Your task to perform on an android device: What's the news in the Philippines? Image 0: 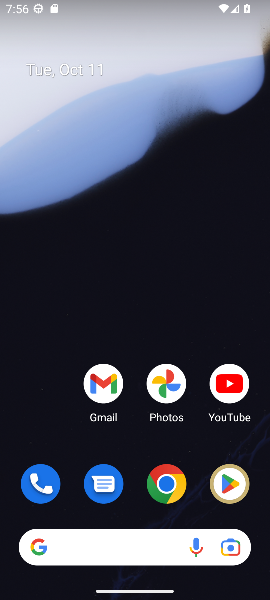
Step 0: drag from (184, 506) to (229, 37)
Your task to perform on an android device: What's the news in the Philippines? Image 1: 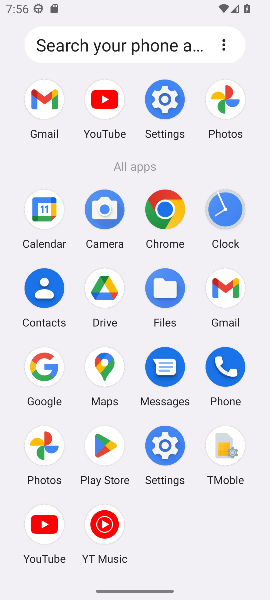
Step 1: click (165, 223)
Your task to perform on an android device: What's the news in the Philippines? Image 2: 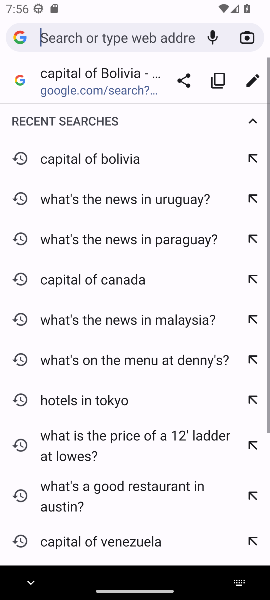
Step 2: click (165, 40)
Your task to perform on an android device: What's the news in the Philippines? Image 3: 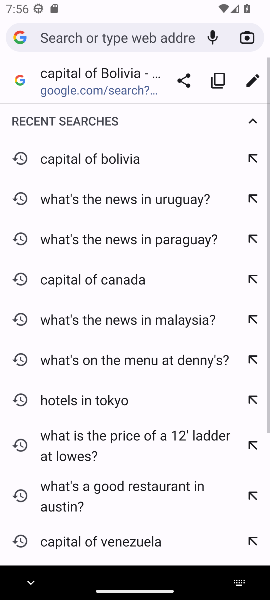
Step 3: type ""
Your task to perform on an android device: What's the news in the Philippines? Image 4: 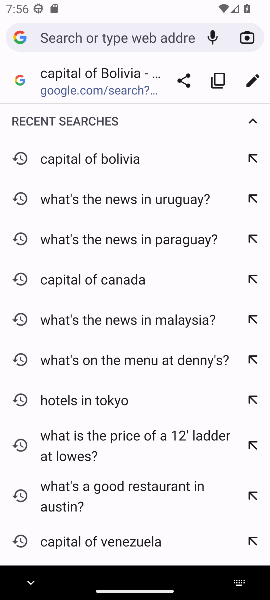
Step 4: type "What's the news in the Philippines?"
Your task to perform on an android device: What's the news in the Philippines? Image 5: 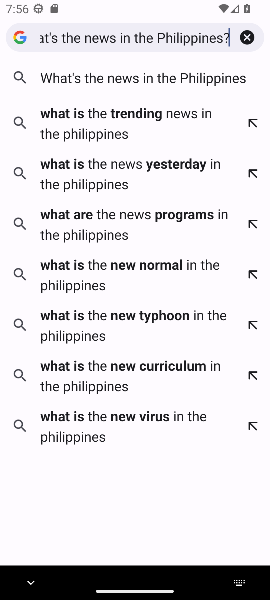
Step 5: press enter
Your task to perform on an android device: What's the news in the Philippines? Image 6: 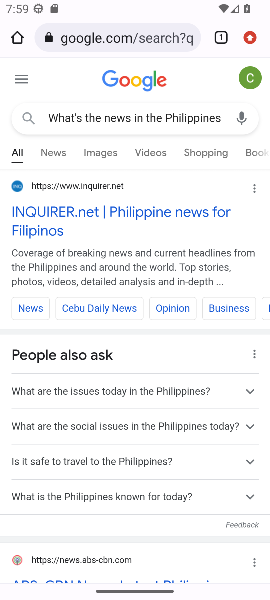
Step 6: task complete